Your task to perform on an android device: toggle javascript in the chrome app Image 0: 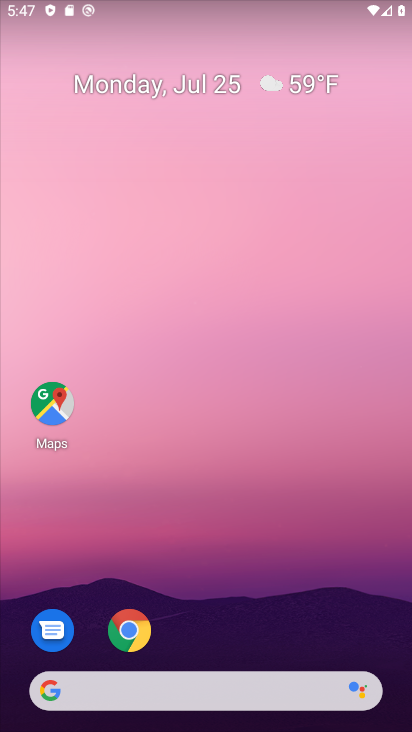
Step 0: click (124, 618)
Your task to perform on an android device: toggle javascript in the chrome app Image 1: 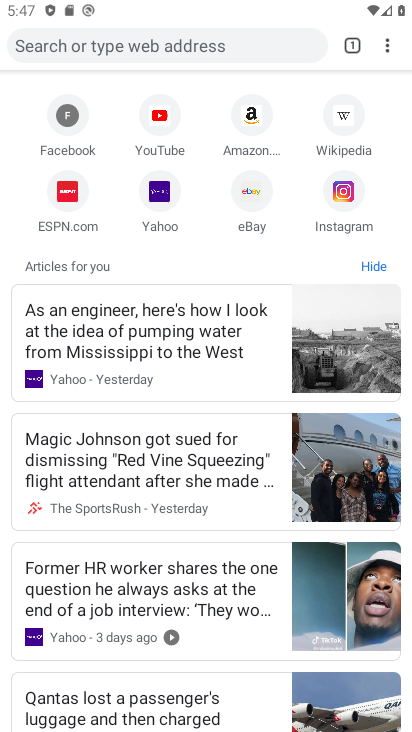
Step 1: click (382, 45)
Your task to perform on an android device: toggle javascript in the chrome app Image 2: 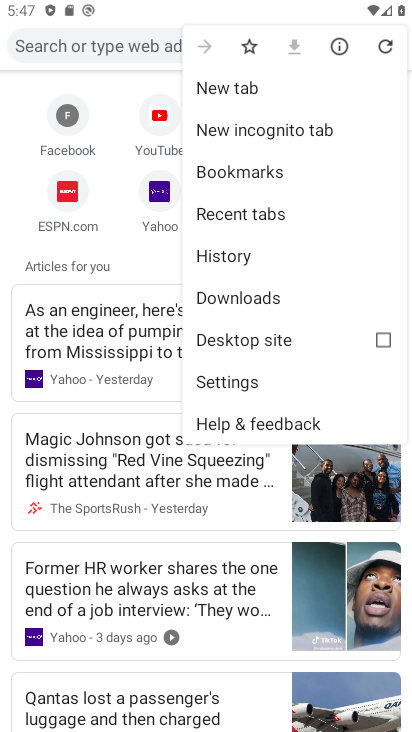
Step 2: click (234, 377)
Your task to perform on an android device: toggle javascript in the chrome app Image 3: 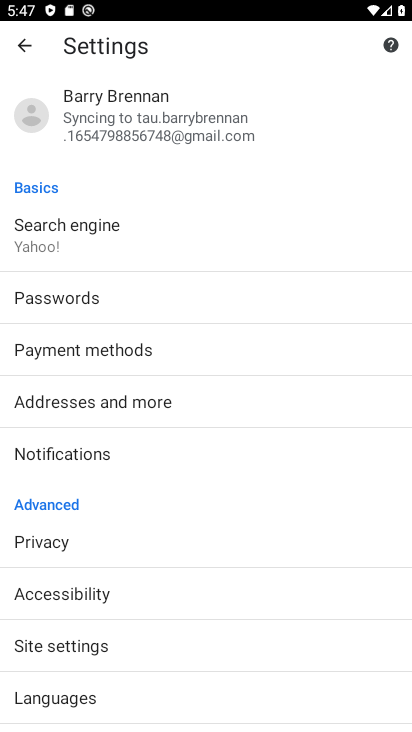
Step 3: click (95, 638)
Your task to perform on an android device: toggle javascript in the chrome app Image 4: 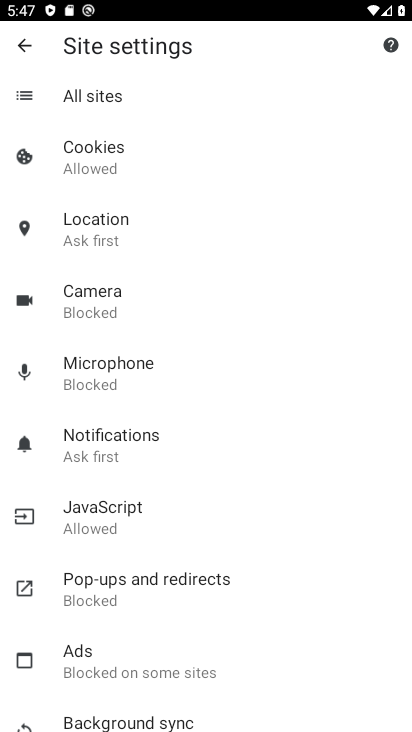
Step 4: click (99, 520)
Your task to perform on an android device: toggle javascript in the chrome app Image 5: 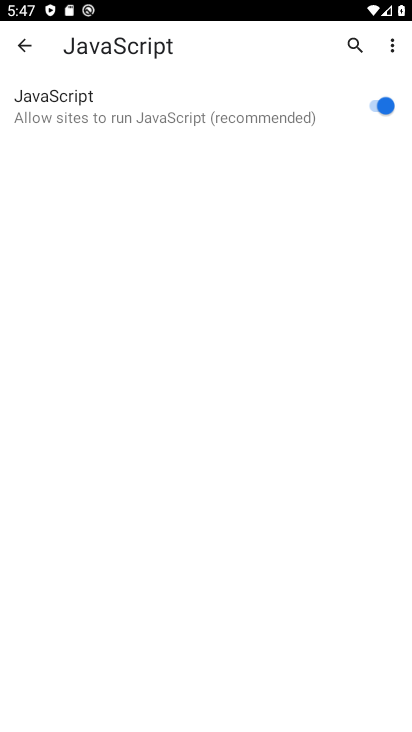
Step 5: click (375, 105)
Your task to perform on an android device: toggle javascript in the chrome app Image 6: 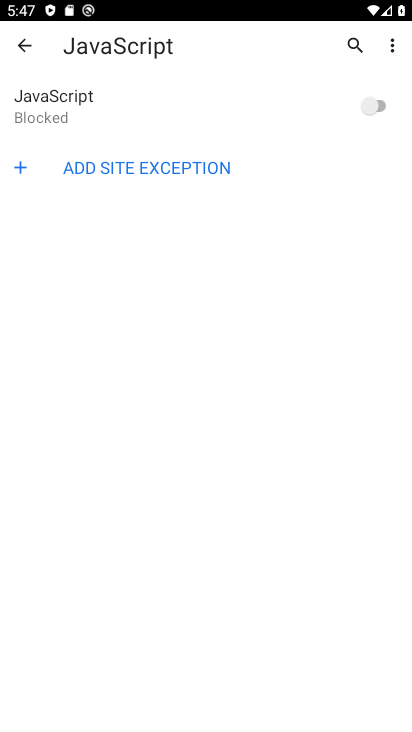
Step 6: task complete